Your task to perform on an android device: remove spam from my inbox in the gmail app Image 0: 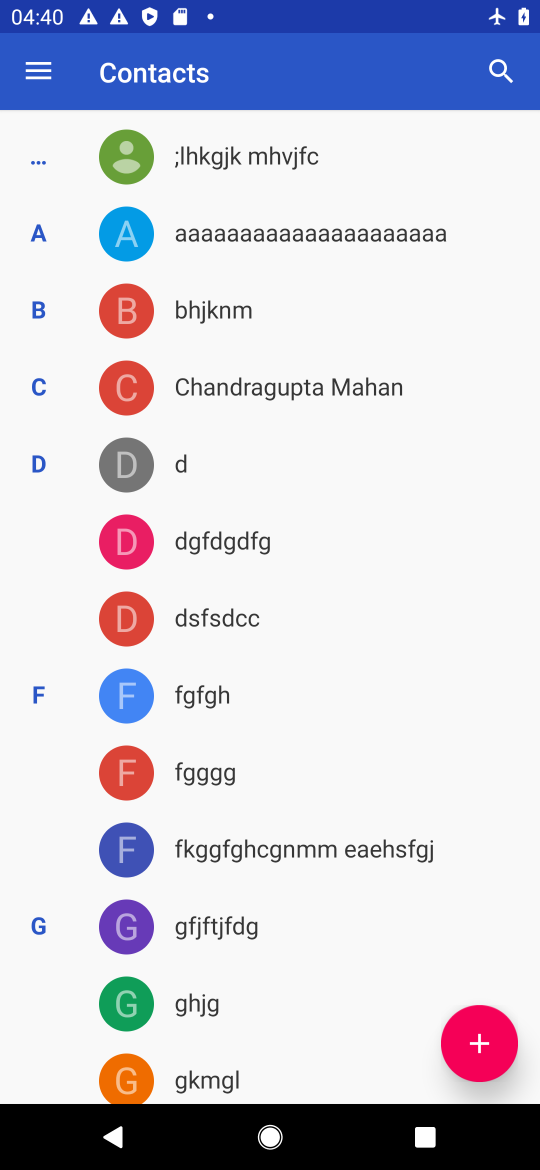
Step 0: press home button
Your task to perform on an android device: remove spam from my inbox in the gmail app Image 1: 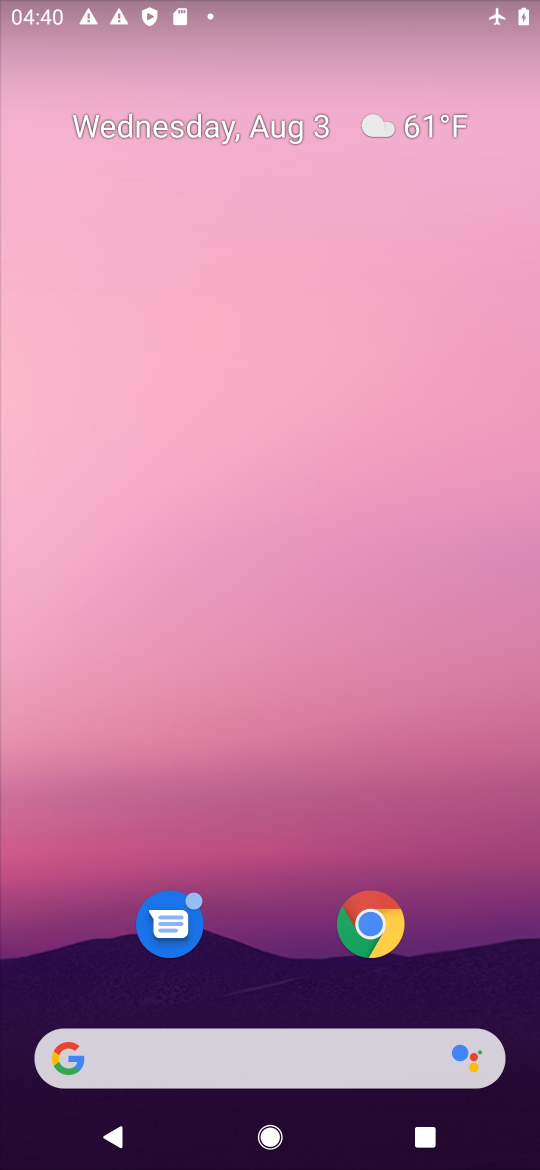
Step 1: drag from (265, 964) to (270, 352)
Your task to perform on an android device: remove spam from my inbox in the gmail app Image 2: 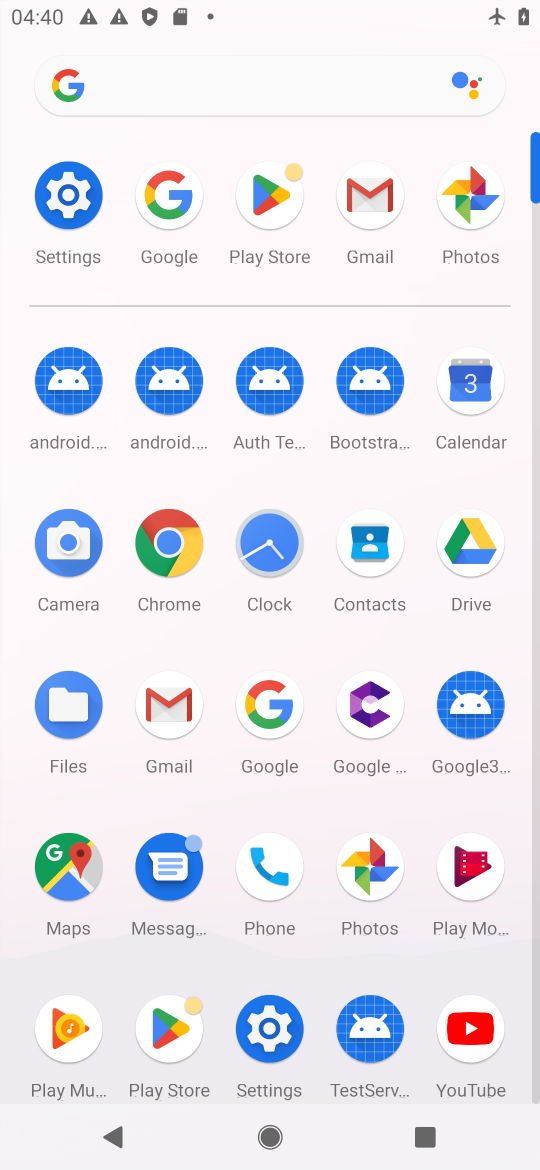
Step 2: click (342, 202)
Your task to perform on an android device: remove spam from my inbox in the gmail app Image 3: 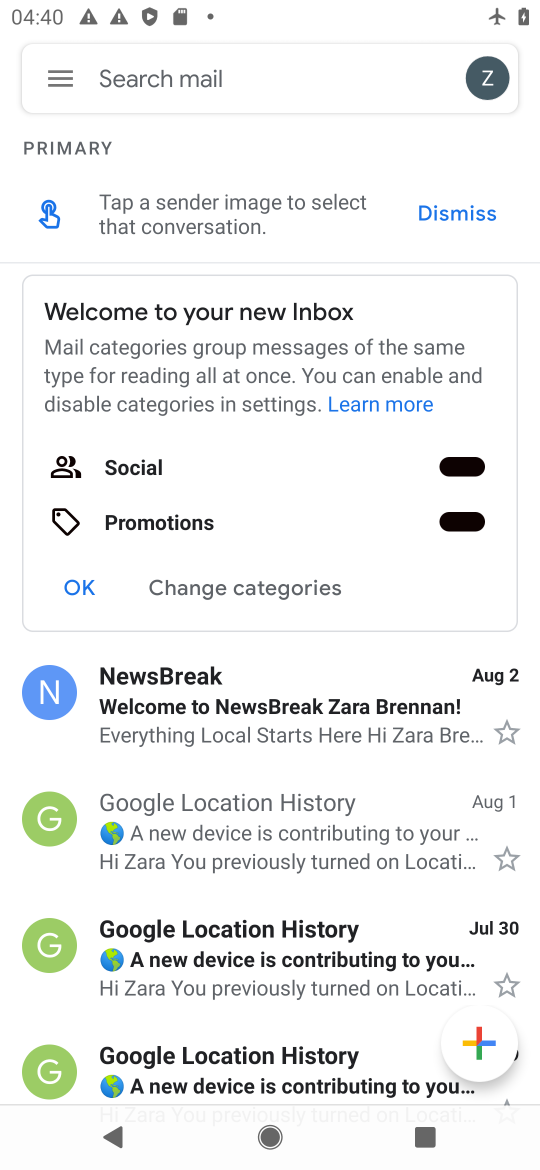
Step 3: click (70, 83)
Your task to perform on an android device: remove spam from my inbox in the gmail app Image 4: 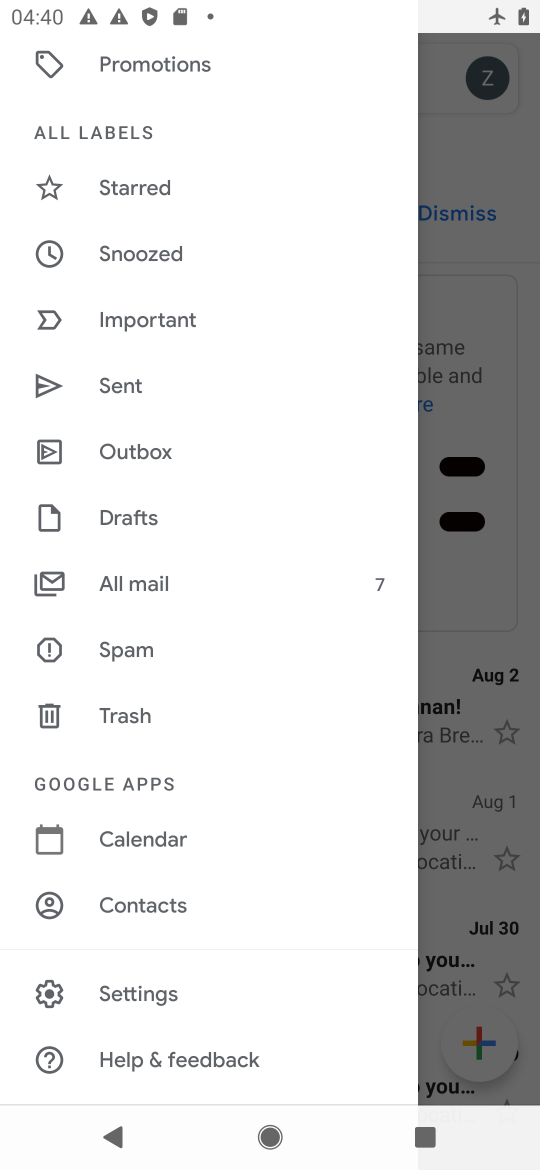
Step 4: click (170, 643)
Your task to perform on an android device: remove spam from my inbox in the gmail app Image 5: 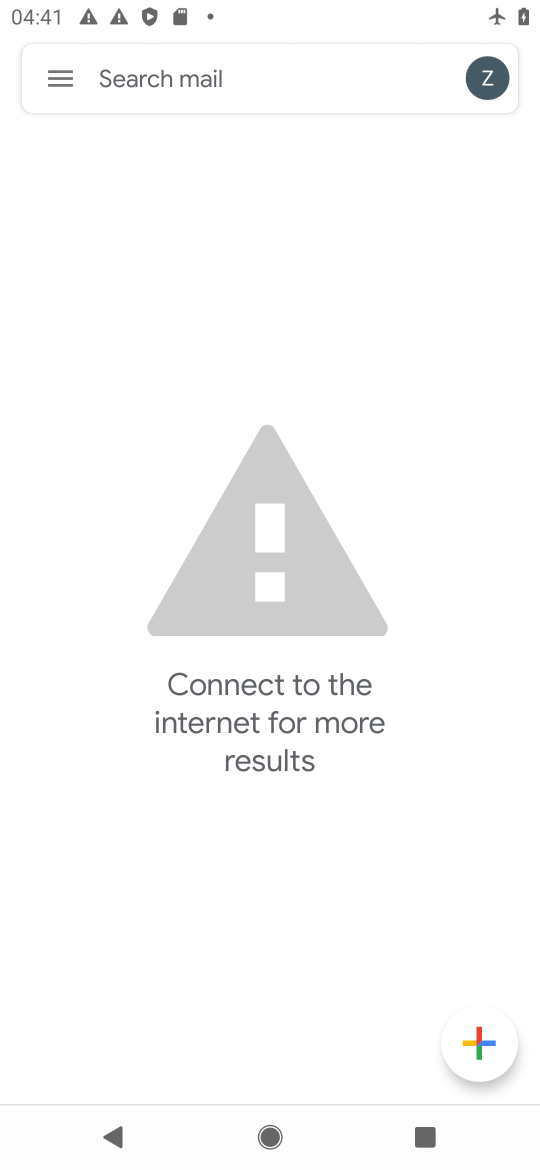
Step 5: click (57, 72)
Your task to perform on an android device: remove spam from my inbox in the gmail app Image 6: 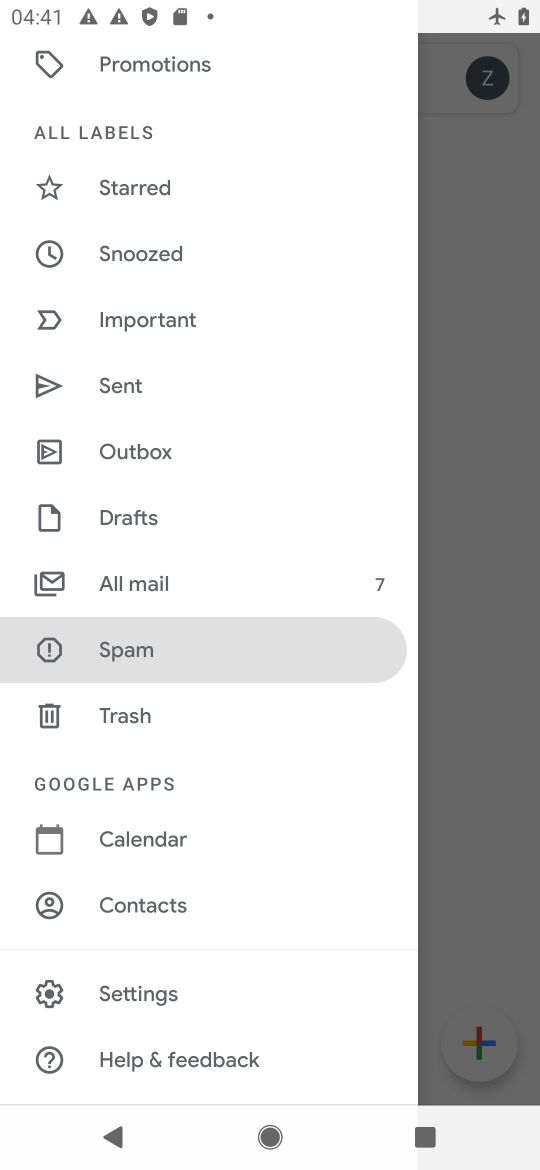
Step 6: task complete